Your task to perform on an android device: Go to CNN.com Image 0: 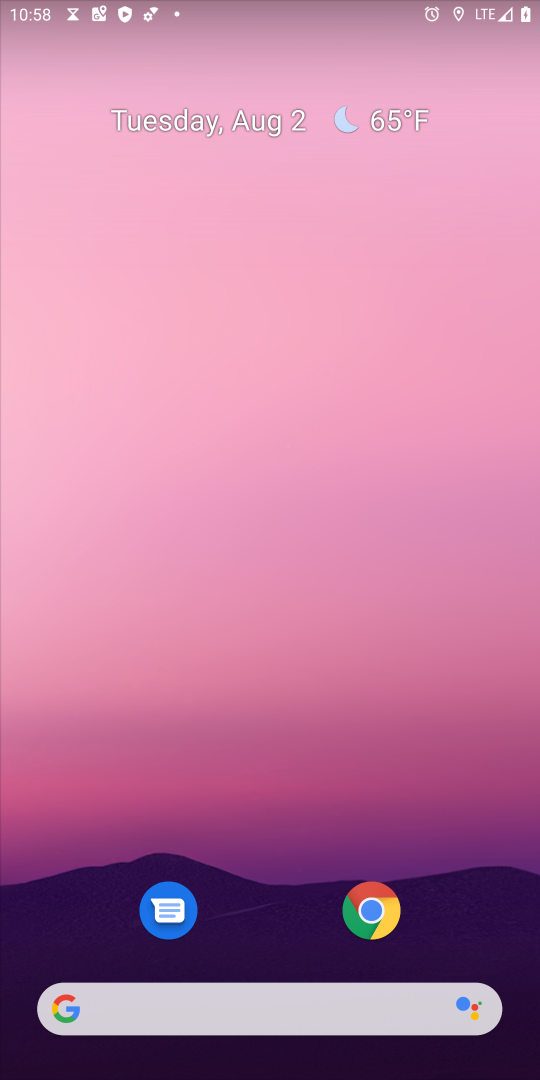
Step 0: drag from (331, 879) to (401, 354)
Your task to perform on an android device: Go to CNN.com Image 1: 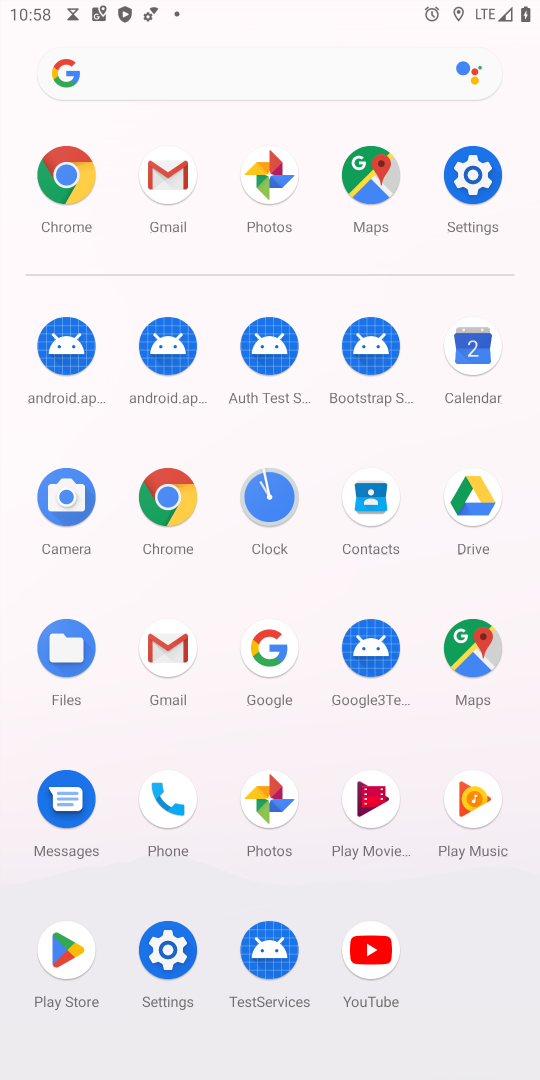
Step 1: click (57, 175)
Your task to perform on an android device: Go to CNN.com Image 2: 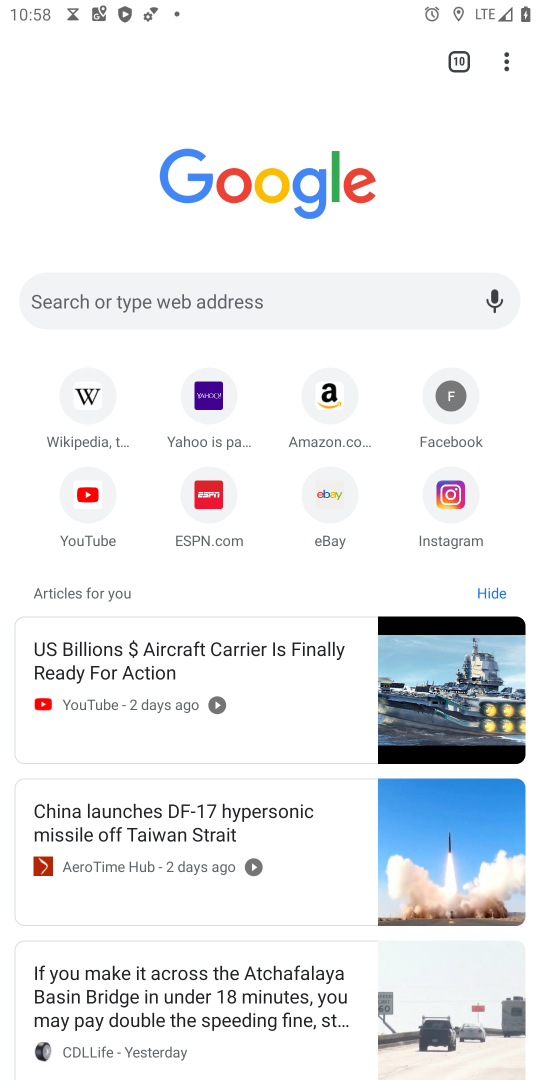
Step 2: click (225, 295)
Your task to perform on an android device: Go to CNN.com Image 3: 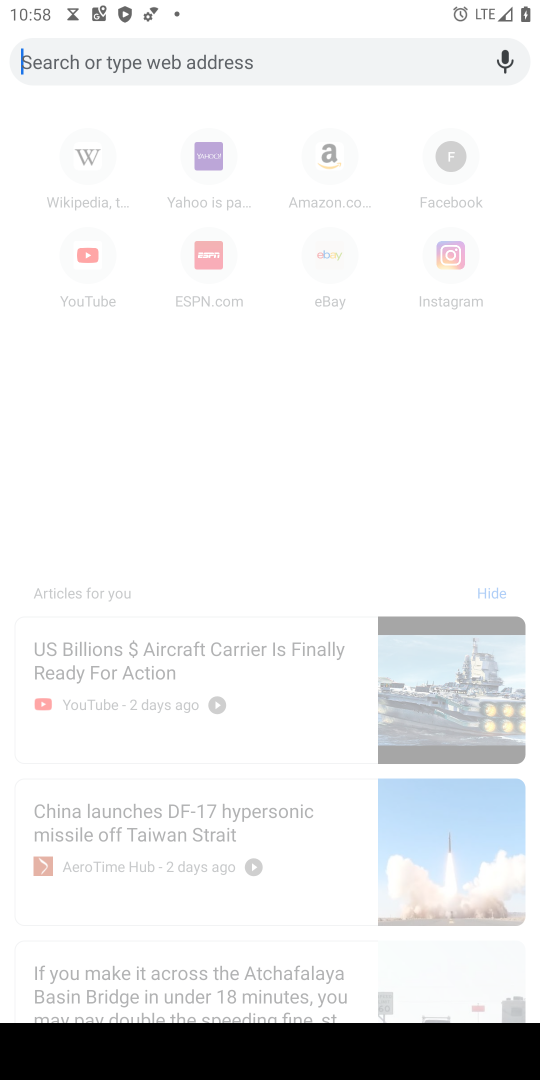
Step 3: click (289, 48)
Your task to perform on an android device: Go to CNN.com Image 4: 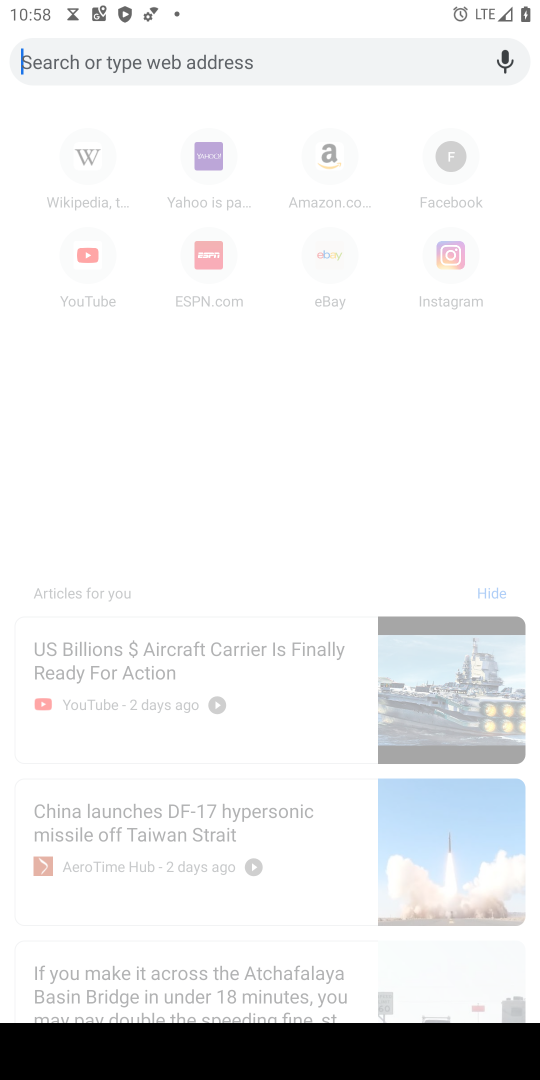
Step 4: type "CNN.com "
Your task to perform on an android device: Go to CNN.com Image 5: 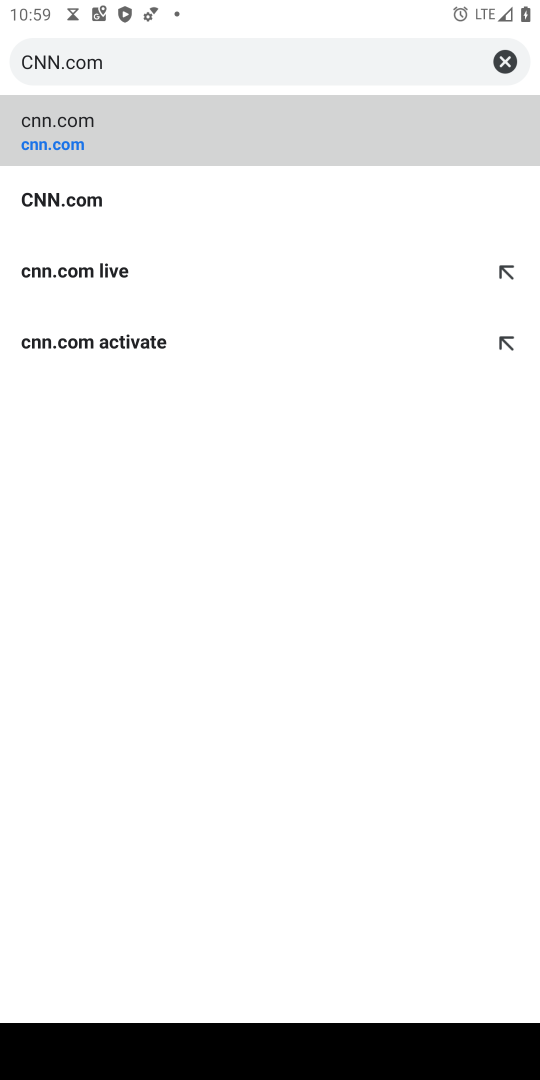
Step 5: click (178, 141)
Your task to perform on an android device: Go to CNN.com Image 6: 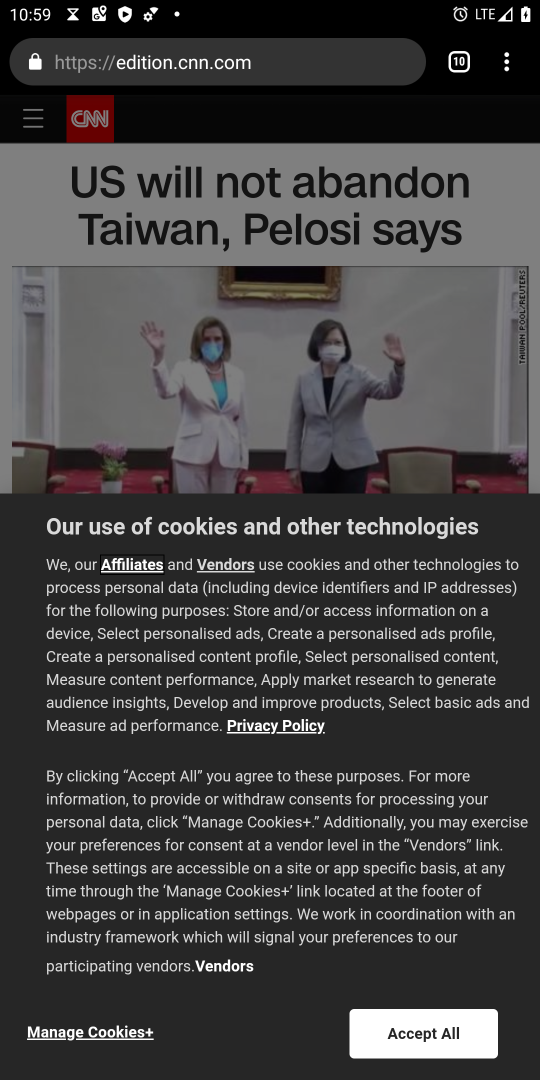
Step 6: task complete